Your task to perform on an android device: Search for lenovo thinkpad on target.com, select the first entry, and add it to the cart. Image 0: 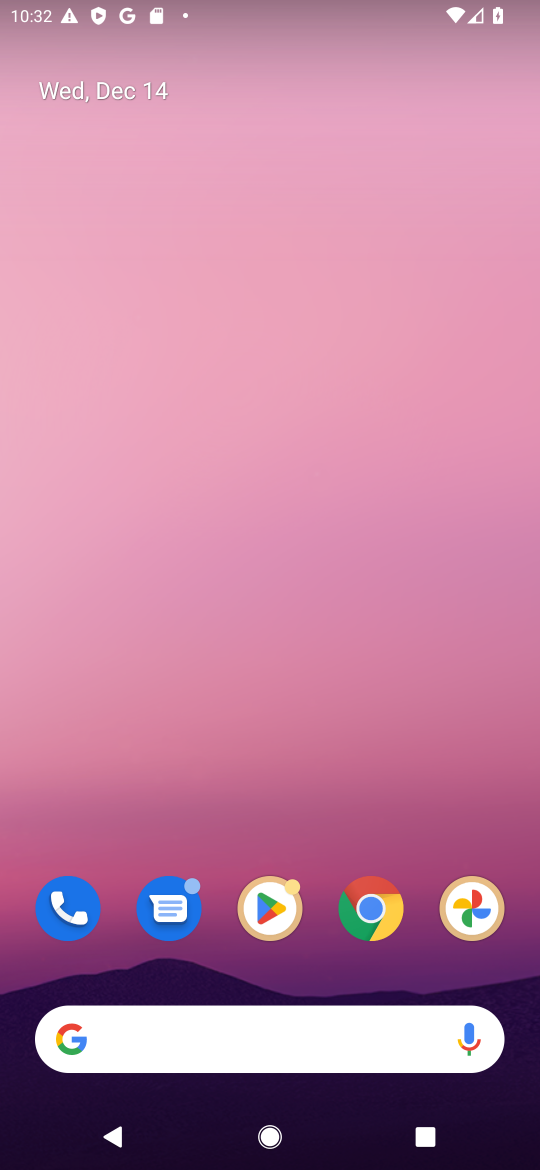
Step 0: click (373, 936)
Your task to perform on an android device: Search for lenovo thinkpad on target.com, select the first entry, and add it to the cart. Image 1: 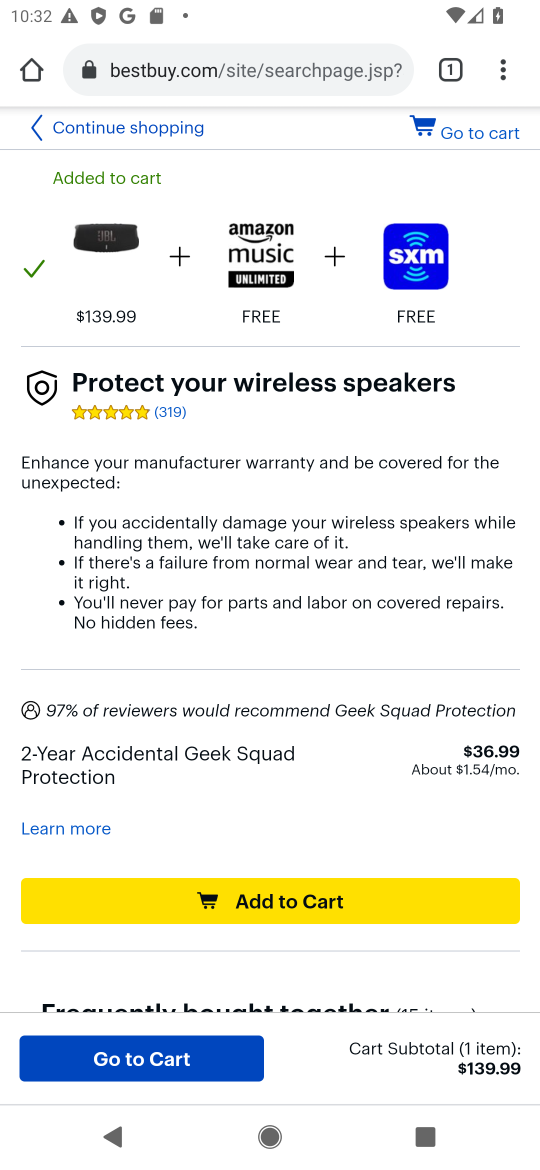
Step 1: click (265, 69)
Your task to perform on an android device: Search for lenovo thinkpad on target.com, select the first entry, and add it to the cart. Image 2: 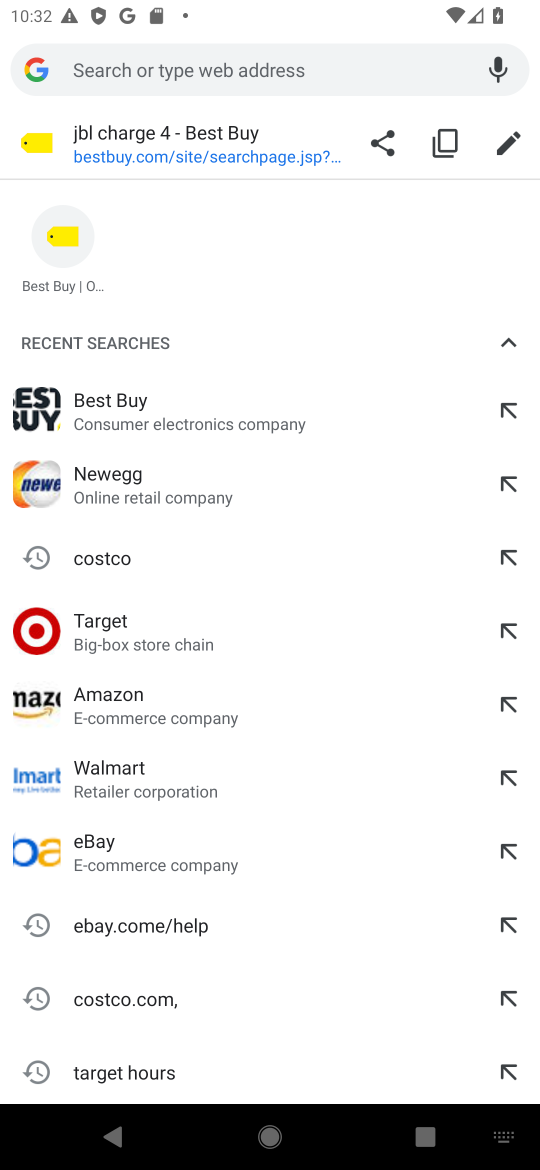
Step 2: type "target"
Your task to perform on an android device: Search for lenovo thinkpad on target.com, select the first entry, and add it to the cart. Image 3: 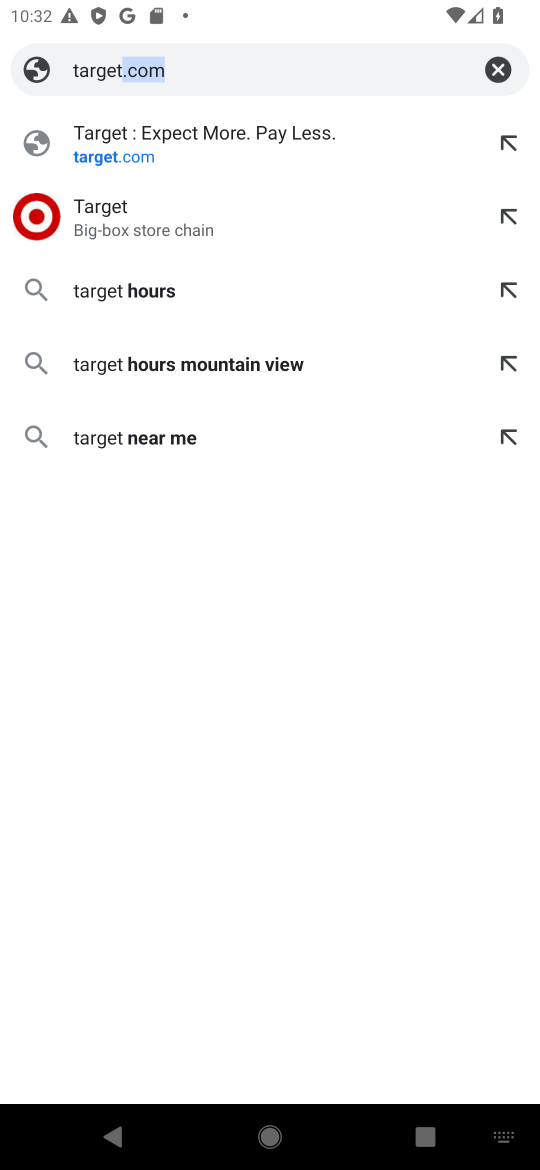
Step 3: click (119, 245)
Your task to perform on an android device: Search for lenovo thinkpad on target.com, select the first entry, and add it to the cart. Image 4: 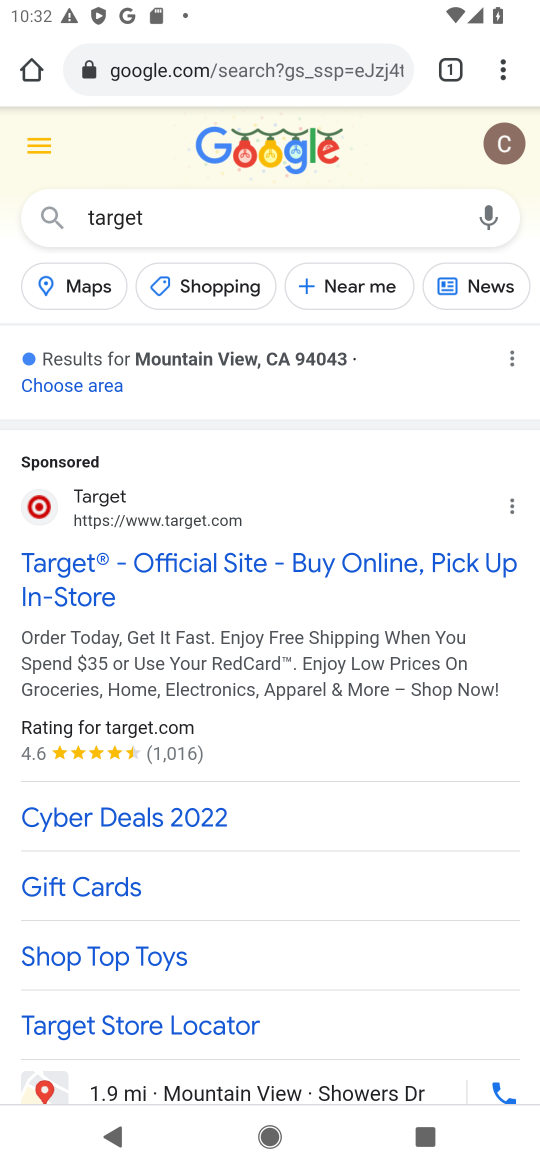
Step 4: click (59, 590)
Your task to perform on an android device: Search for lenovo thinkpad on target.com, select the first entry, and add it to the cart. Image 5: 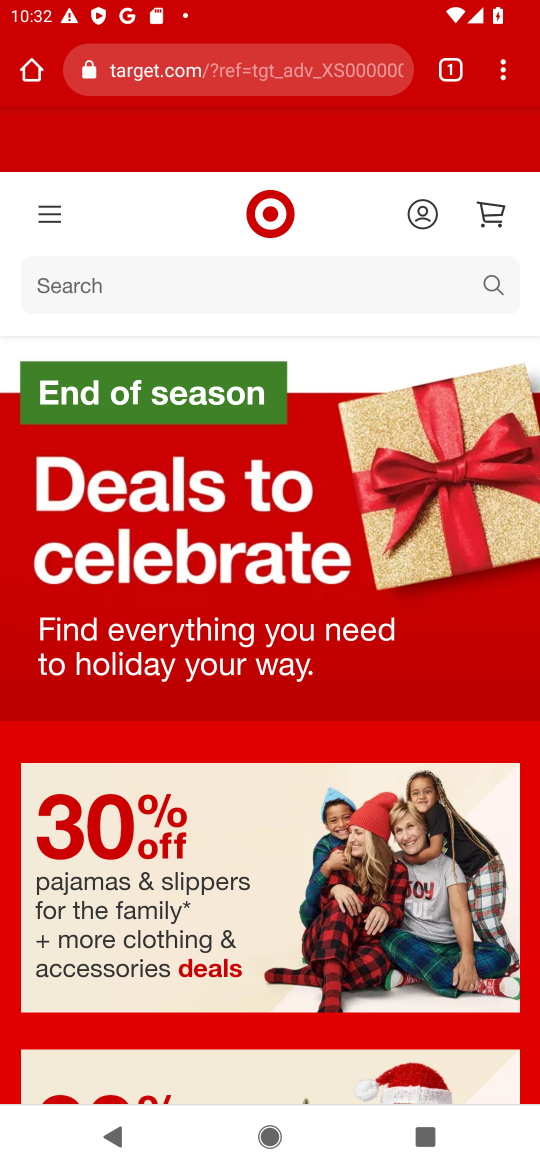
Step 5: click (81, 276)
Your task to perform on an android device: Search for lenovo thinkpad on target.com, select the first entry, and add it to the cart. Image 6: 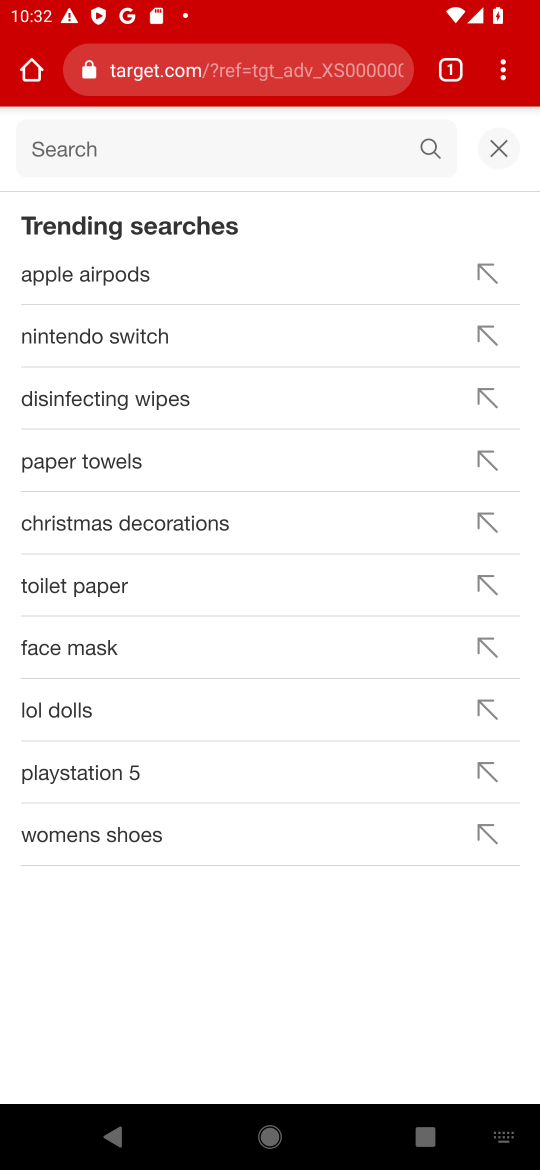
Step 6: type "lenovo thinkpad"
Your task to perform on an android device: Search for lenovo thinkpad on target.com, select the first entry, and add it to the cart. Image 7: 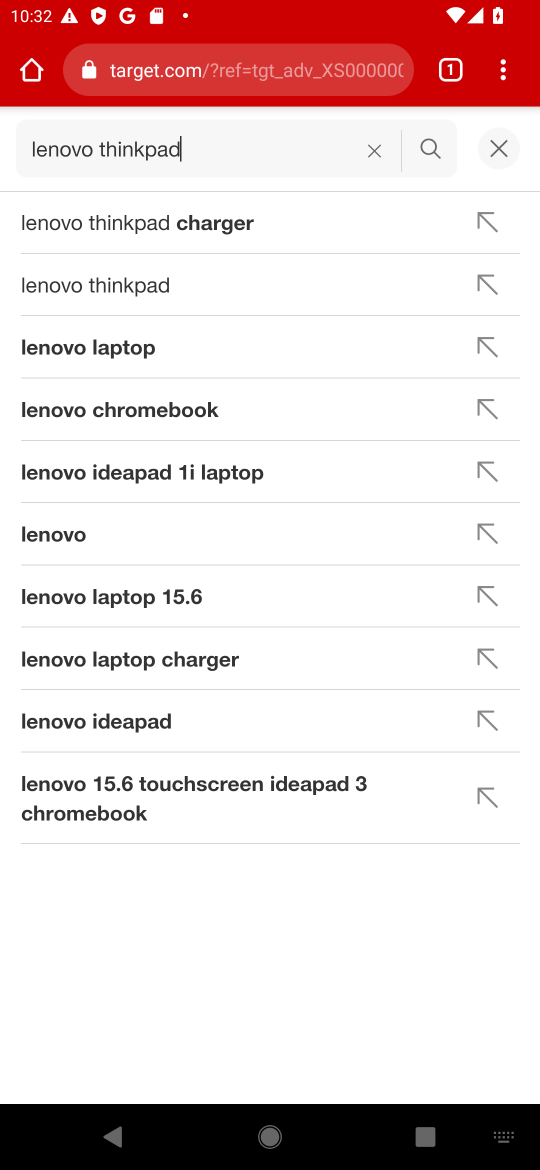
Step 7: click (161, 278)
Your task to perform on an android device: Search for lenovo thinkpad on target.com, select the first entry, and add it to the cart. Image 8: 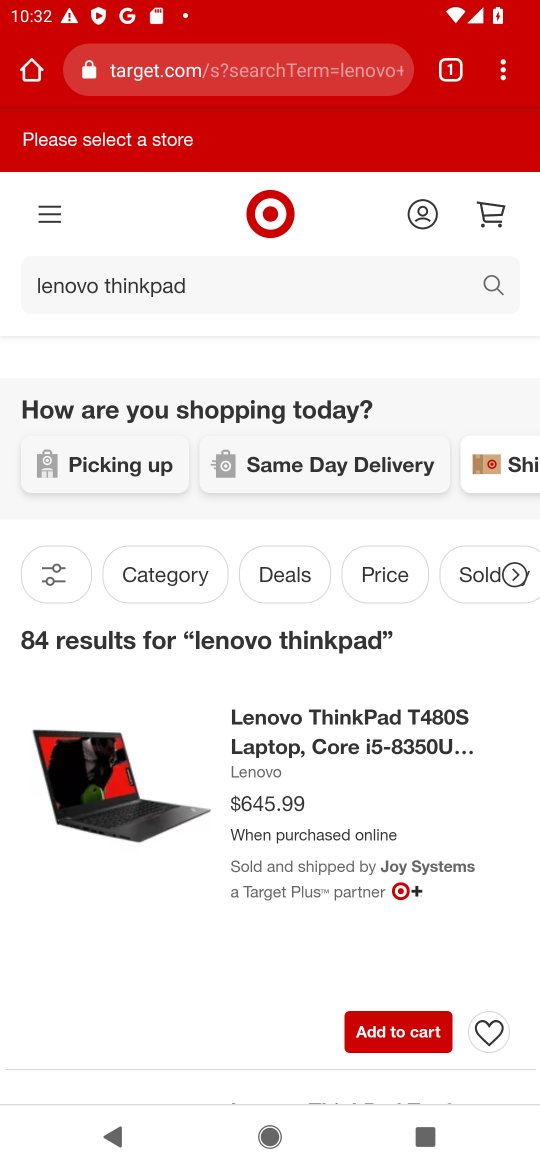
Step 8: click (369, 1036)
Your task to perform on an android device: Search for lenovo thinkpad on target.com, select the first entry, and add it to the cart. Image 9: 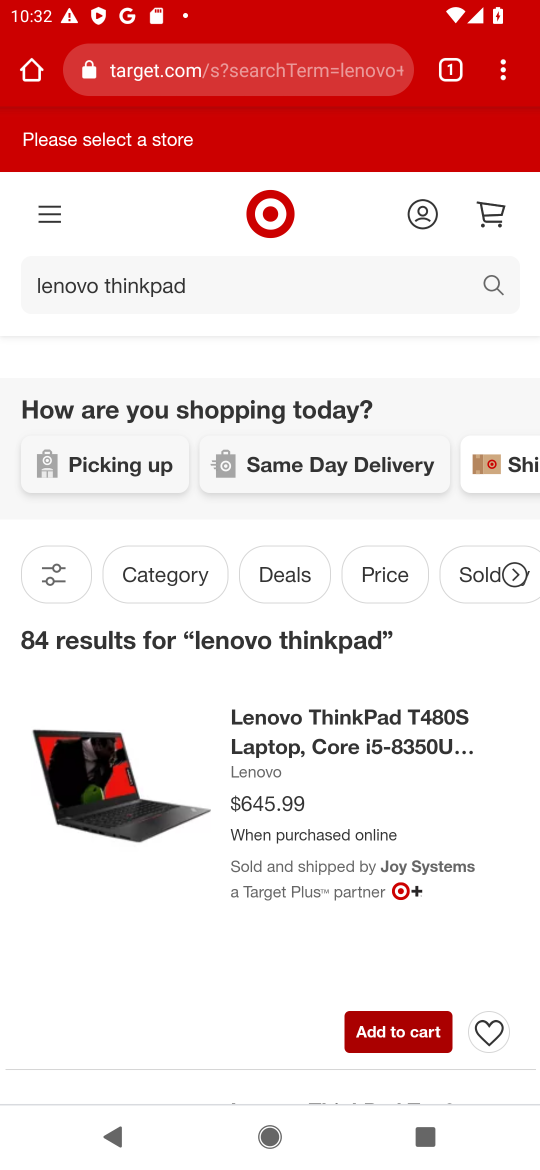
Step 9: task complete